Your task to perform on an android device: open device folders in google photos Image 0: 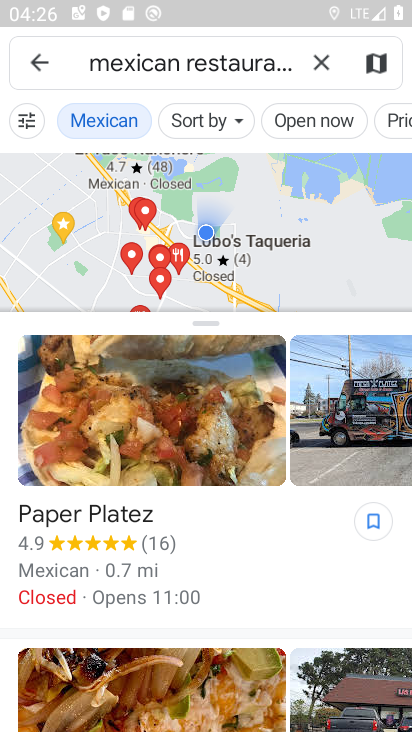
Step 0: click (34, 57)
Your task to perform on an android device: open device folders in google photos Image 1: 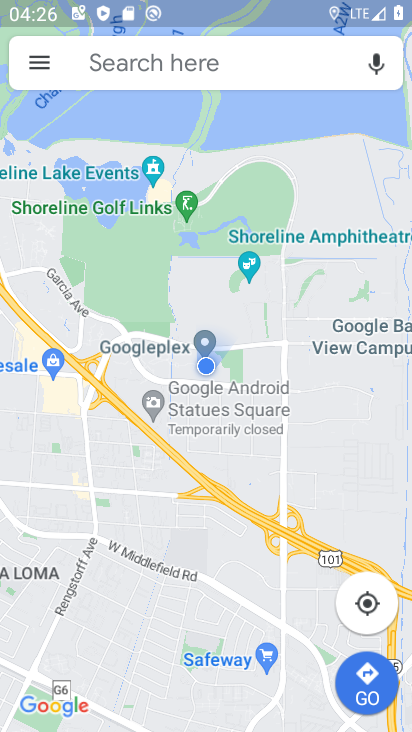
Step 1: press back button
Your task to perform on an android device: open device folders in google photos Image 2: 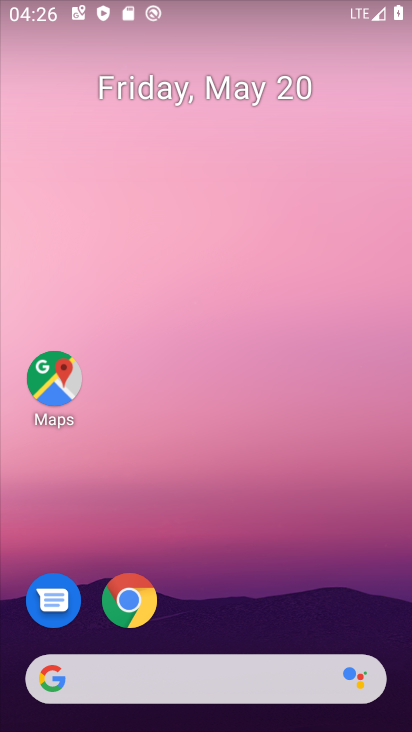
Step 2: drag from (250, 547) to (177, 29)
Your task to perform on an android device: open device folders in google photos Image 3: 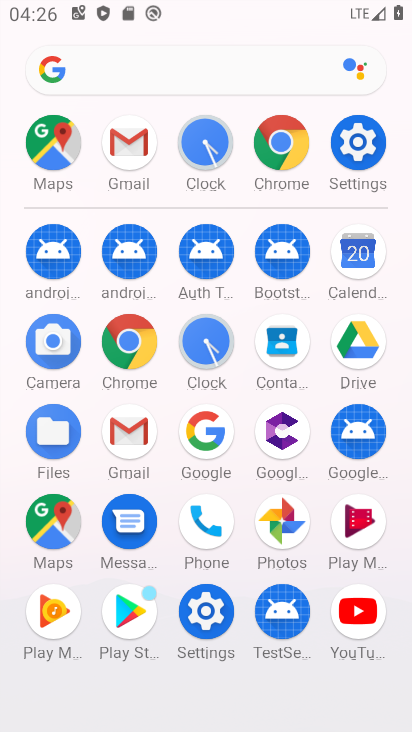
Step 3: drag from (3, 543) to (21, 259)
Your task to perform on an android device: open device folders in google photos Image 4: 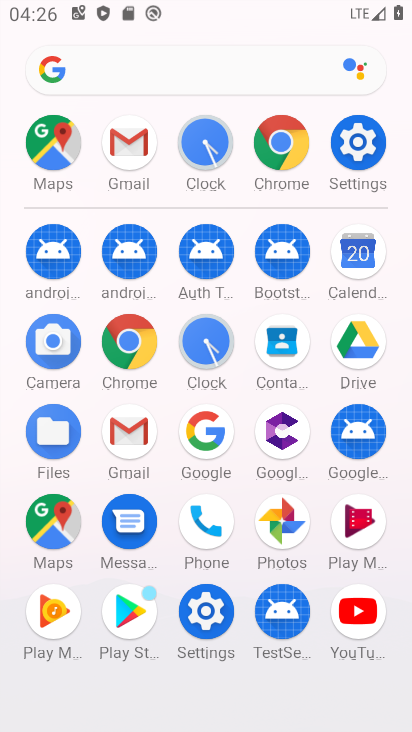
Step 4: click (280, 520)
Your task to perform on an android device: open device folders in google photos Image 5: 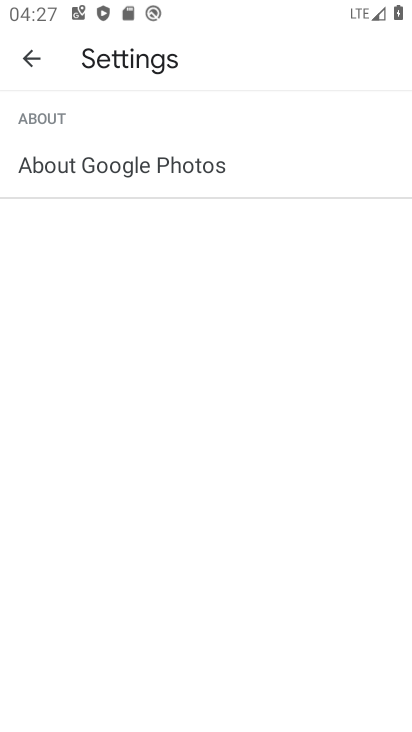
Step 5: click (30, 59)
Your task to perform on an android device: open device folders in google photos Image 6: 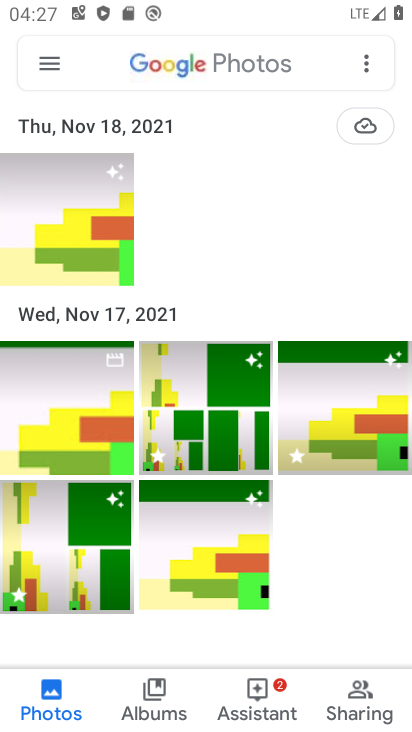
Step 6: click (47, 63)
Your task to perform on an android device: open device folders in google photos Image 7: 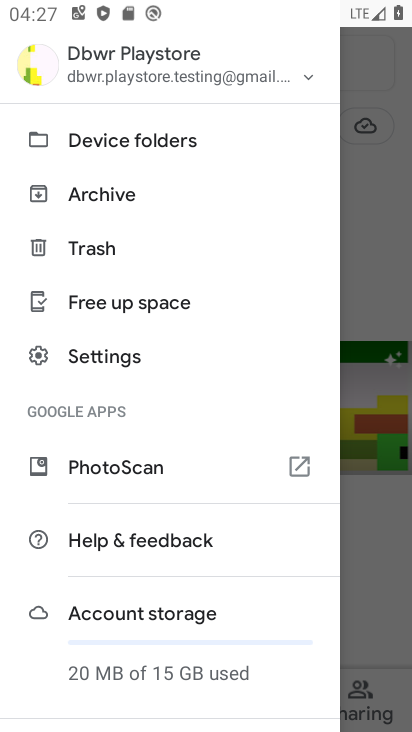
Step 7: click (124, 150)
Your task to perform on an android device: open device folders in google photos Image 8: 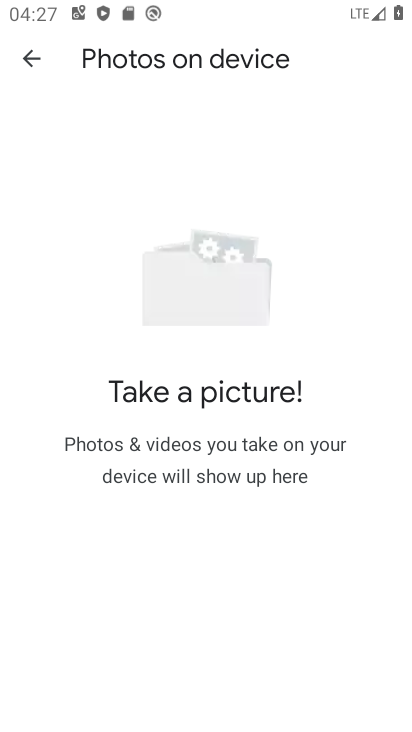
Step 8: task complete